Your task to perform on an android device: Go to accessibility settings Image 0: 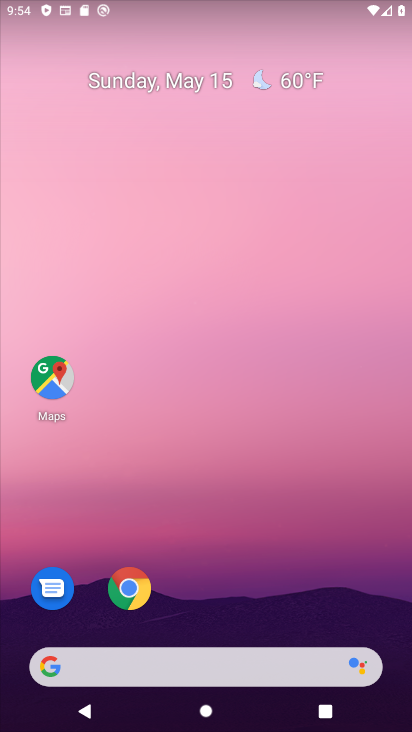
Step 0: drag from (264, 601) to (241, 180)
Your task to perform on an android device: Go to accessibility settings Image 1: 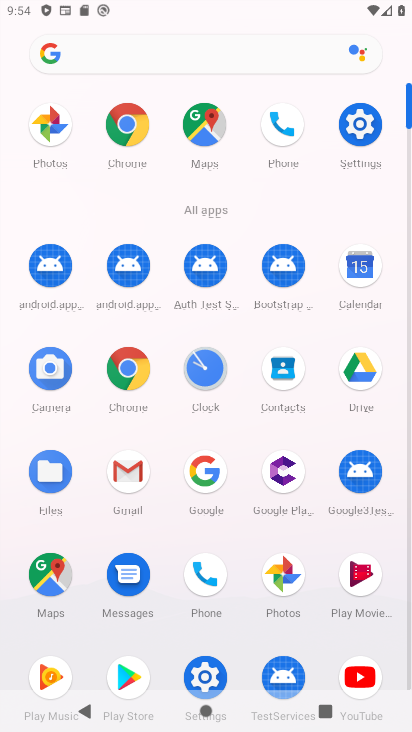
Step 1: click (358, 125)
Your task to perform on an android device: Go to accessibility settings Image 2: 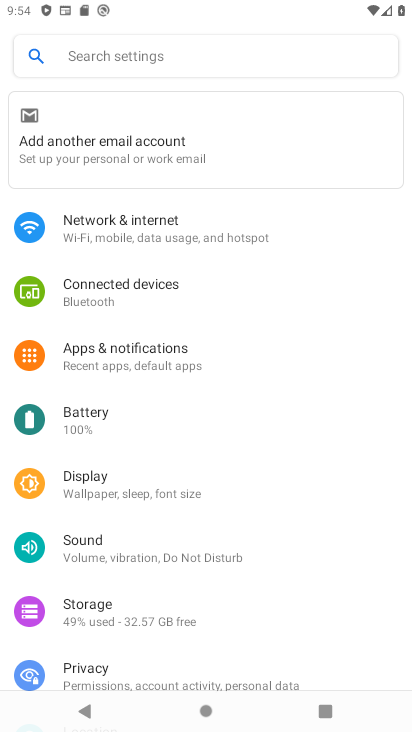
Step 2: drag from (236, 650) to (227, 220)
Your task to perform on an android device: Go to accessibility settings Image 3: 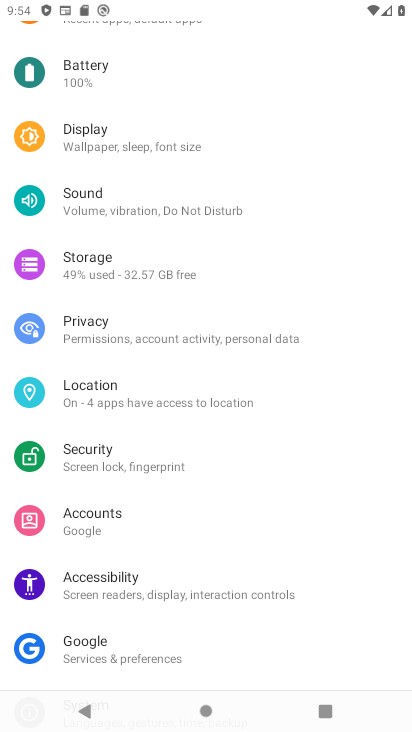
Step 3: click (207, 593)
Your task to perform on an android device: Go to accessibility settings Image 4: 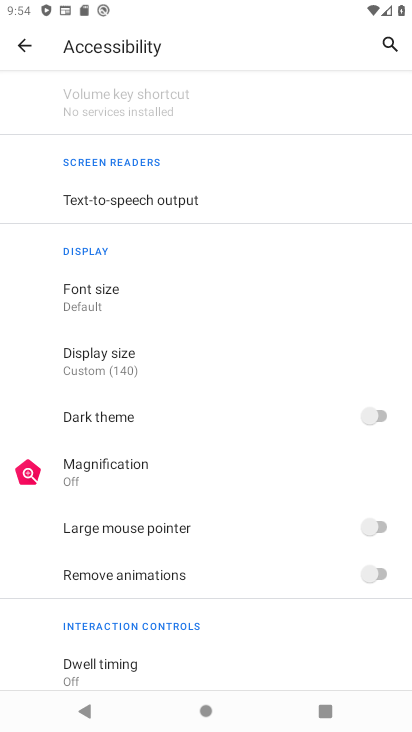
Step 4: task complete